Your task to perform on an android device: Check the settings for the Google Play Music app Image 0: 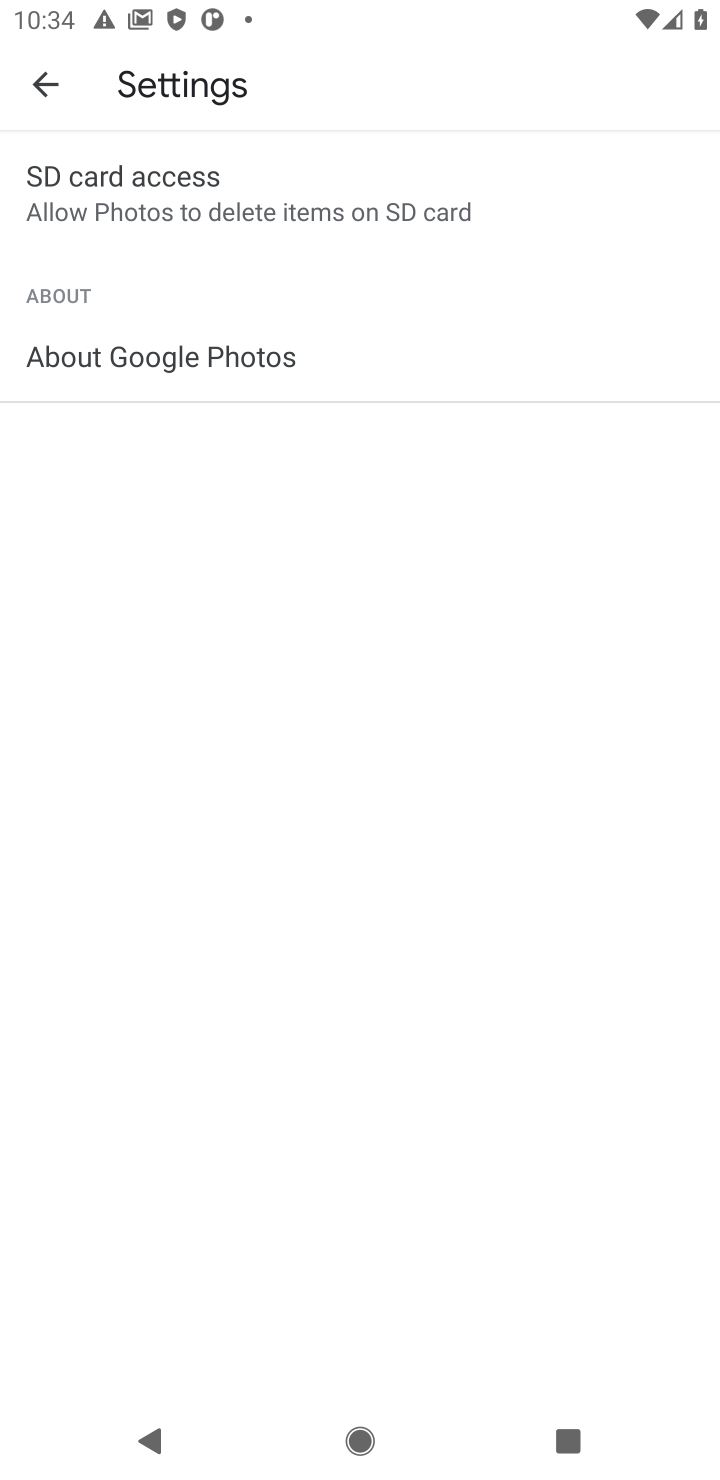
Step 0: press home button
Your task to perform on an android device: Check the settings for the Google Play Music app Image 1: 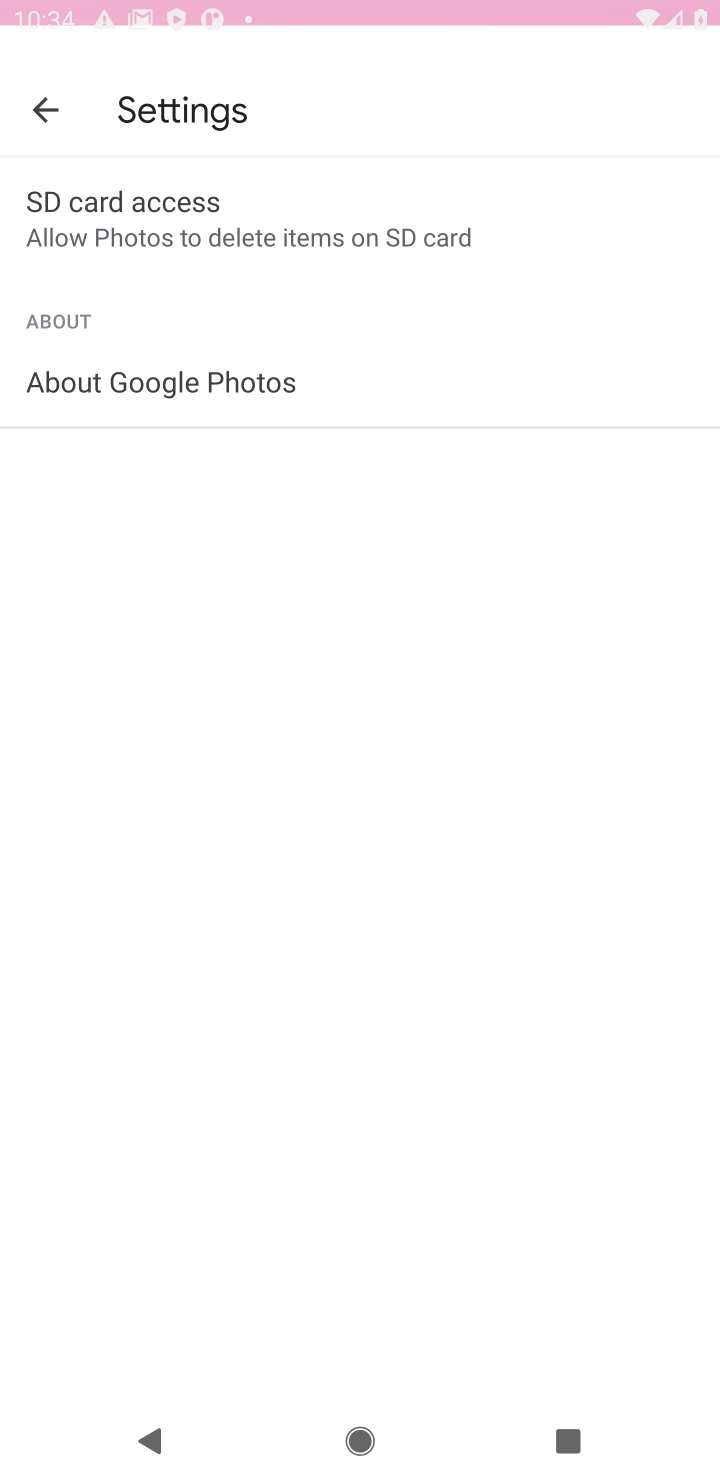
Step 1: task complete